Your task to perform on an android device: Go to Google maps Image 0: 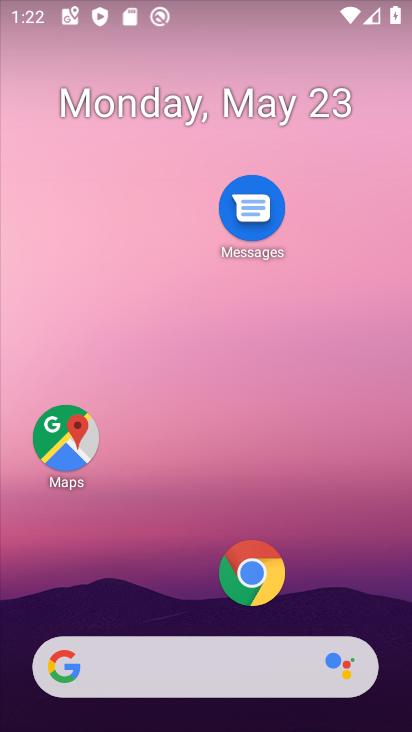
Step 0: click (240, 102)
Your task to perform on an android device: Go to Google maps Image 1: 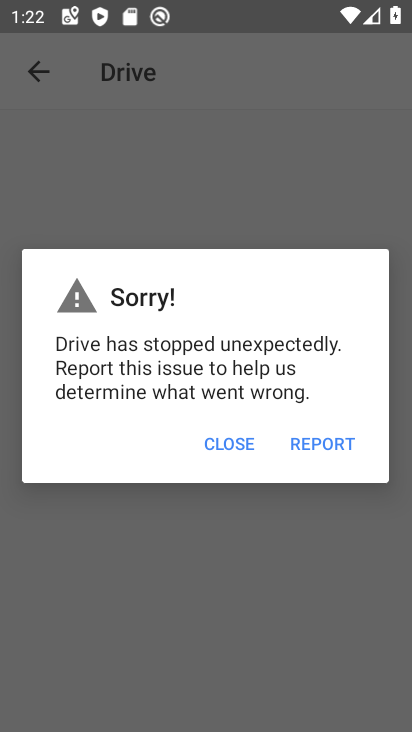
Step 1: press home button
Your task to perform on an android device: Go to Google maps Image 2: 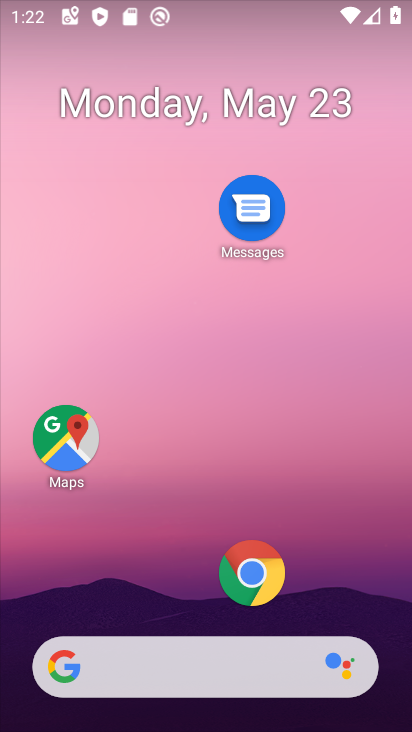
Step 2: drag from (156, 522) to (188, 86)
Your task to perform on an android device: Go to Google maps Image 3: 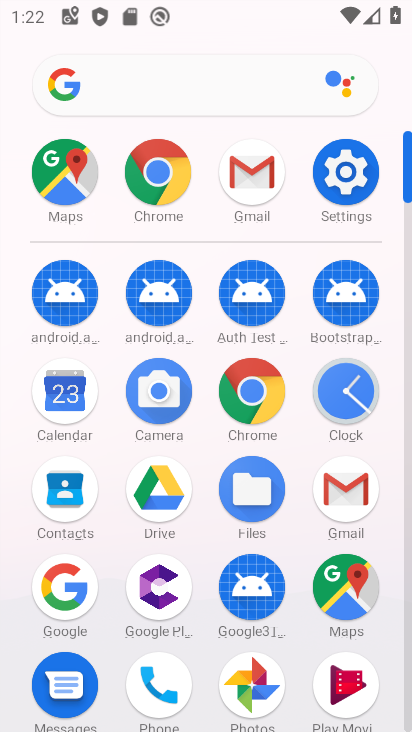
Step 3: click (353, 594)
Your task to perform on an android device: Go to Google maps Image 4: 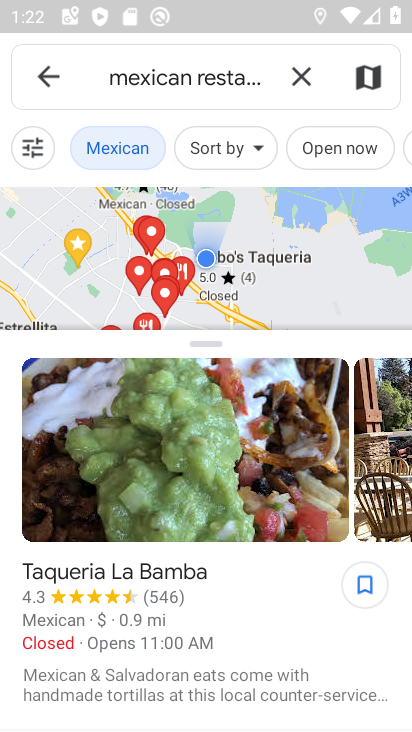
Step 4: click (303, 73)
Your task to perform on an android device: Go to Google maps Image 5: 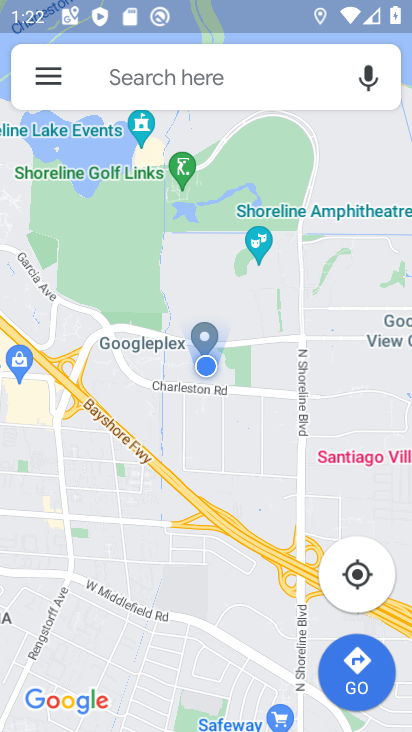
Step 5: task complete